Your task to perform on an android device: toggle show notifications on the lock screen Image 0: 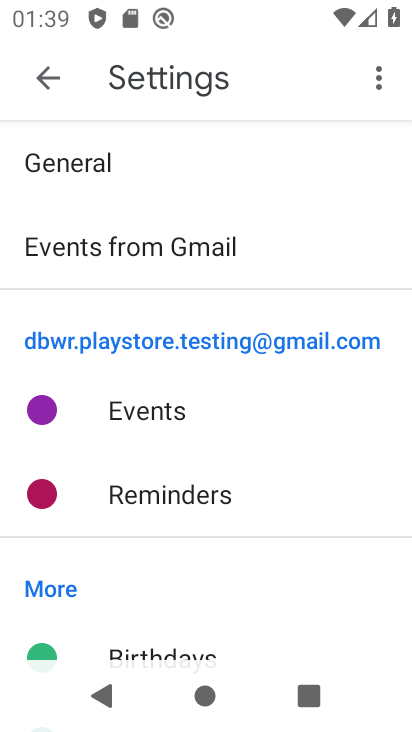
Step 0: press home button
Your task to perform on an android device: toggle show notifications on the lock screen Image 1: 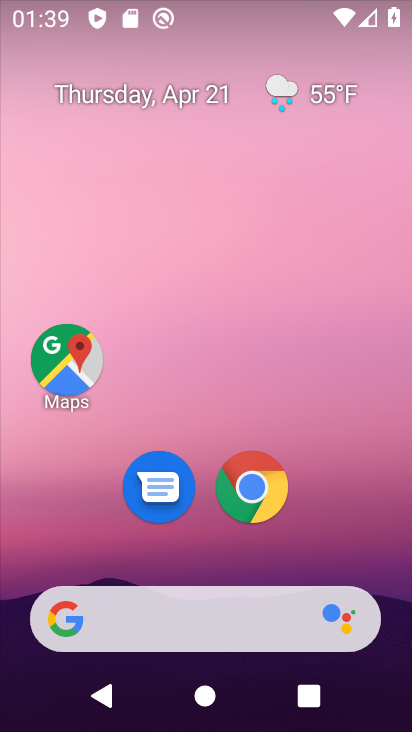
Step 1: drag from (325, 538) to (316, 66)
Your task to perform on an android device: toggle show notifications on the lock screen Image 2: 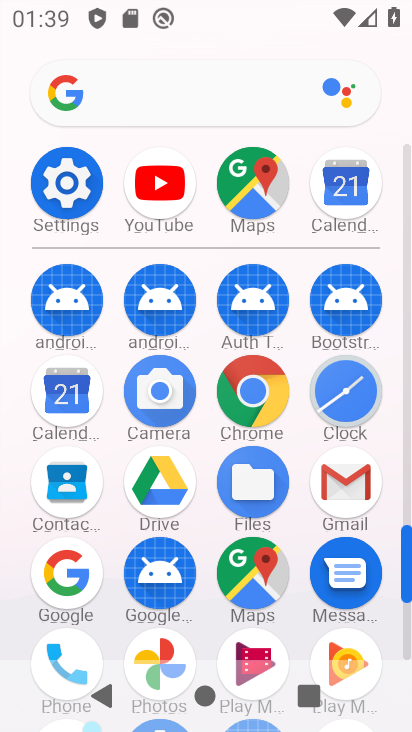
Step 2: click (73, 188)
Your task to perform on an android device: toggle show notifications on the lock screen Image 3: 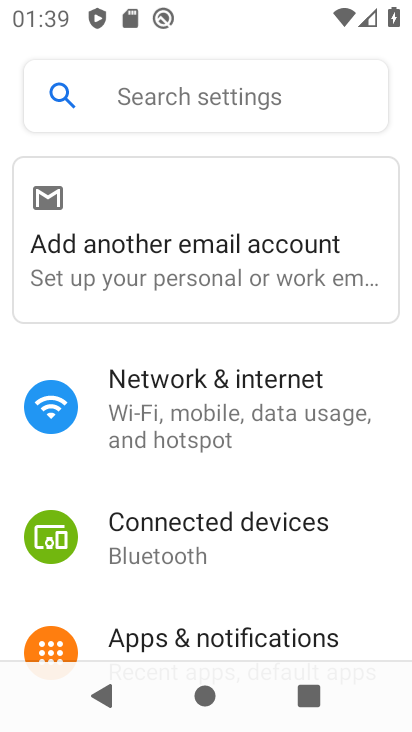
Step 3: click (213, 631)
Your task to perform on an android device: toggle show notifications on the lock screen Image 4: 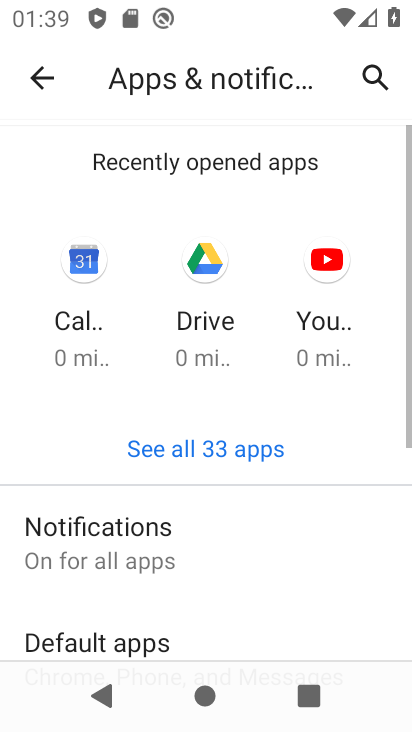
Step 4: drag from (201, 582) to (195, 413)
Your task to perform on an android device: toggle show notifications on the lock screen Image 5: 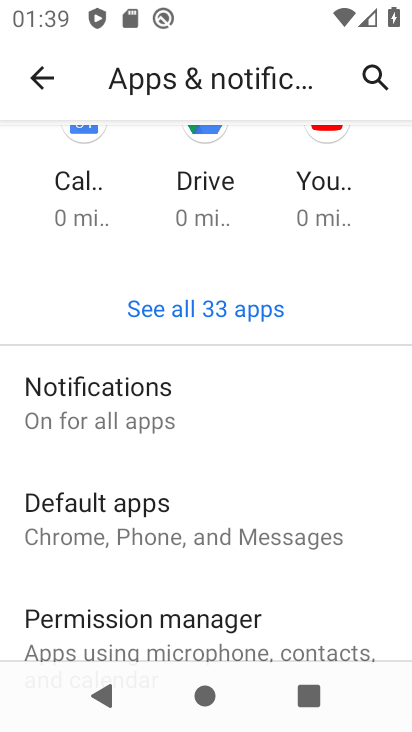
Step 5: click (196, 416)
Your task to perform on an android device: toggle show notifications on the lock screen Image 6: 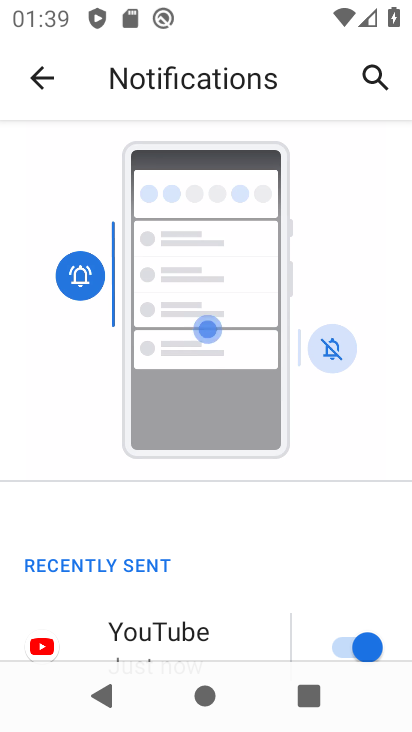
Step 6: drag from (142, 586) to (197, 256)
Your task to perform on an android device: toggle show notifications on the lock screen Image 7: 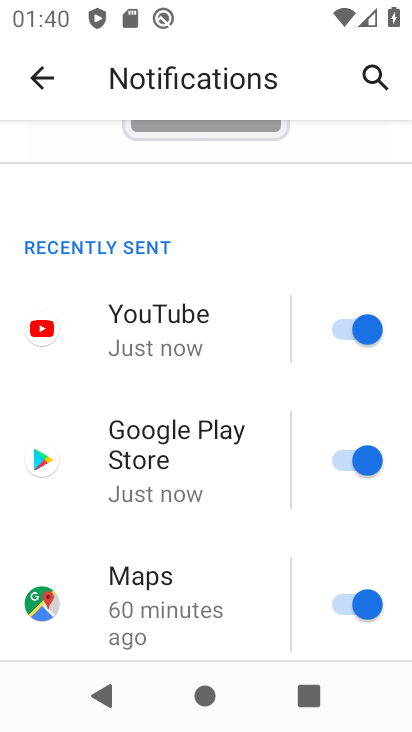
Step 7: drag from (145, 468) to (194, 224)
Your task to perform on an android device: toggle show notifications on the lock screen Image 8: 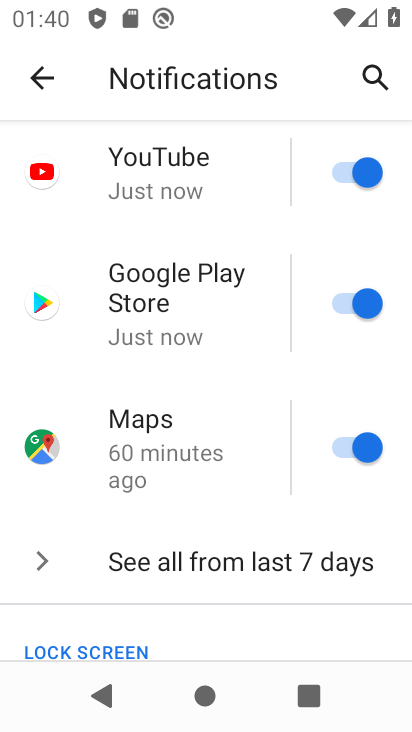
Step 8: drag from (32, 511) to (85, 268)
Your task to perform on an android device: toggle show notifications on the lock screen Image 9: 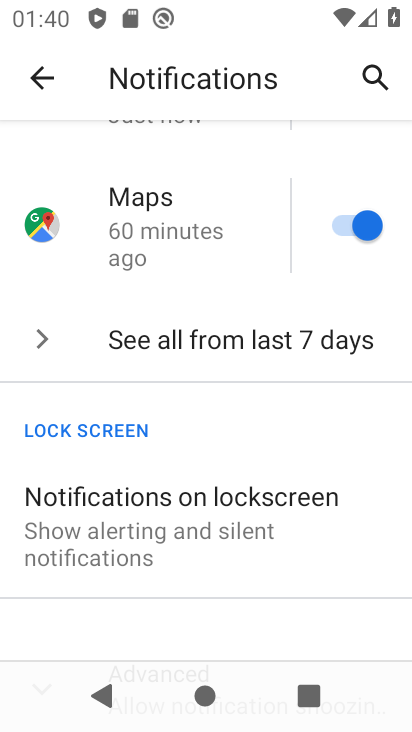
Step 9: drag from (115, 511) to (131, 327)
Your task to perform on an android device: toggle show notifications on the lock screen Image 10: 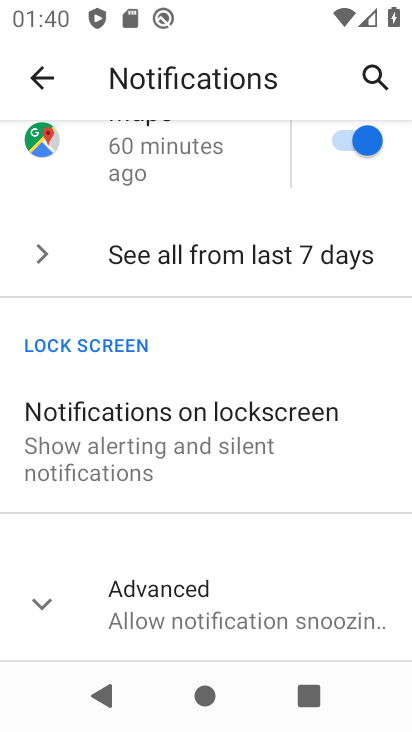
Step 10: click (152, 434)
Your task to perform on an android device: toggle show notifications on the lock screen Image 11: 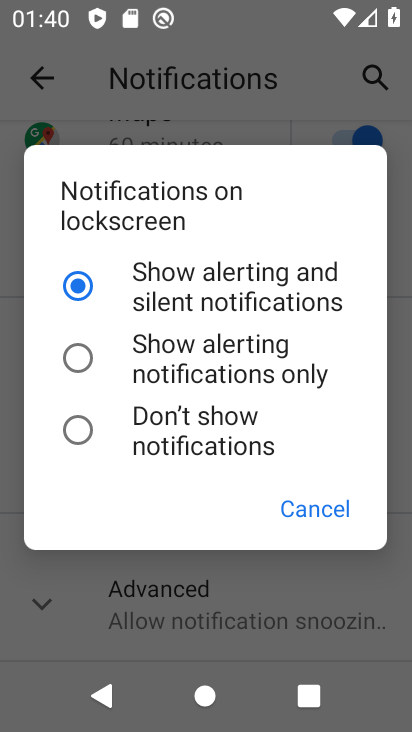
Step 11: click (141, 365)
Your task to perform on an android device: toggle show notifications on the lock screen Image 12: 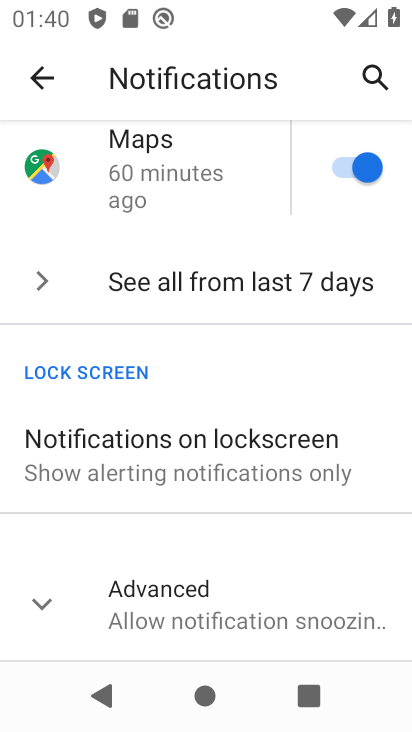
Step 12: task complete